Your task to perform on an android device: search for starred emails in the gmail app Image 0: 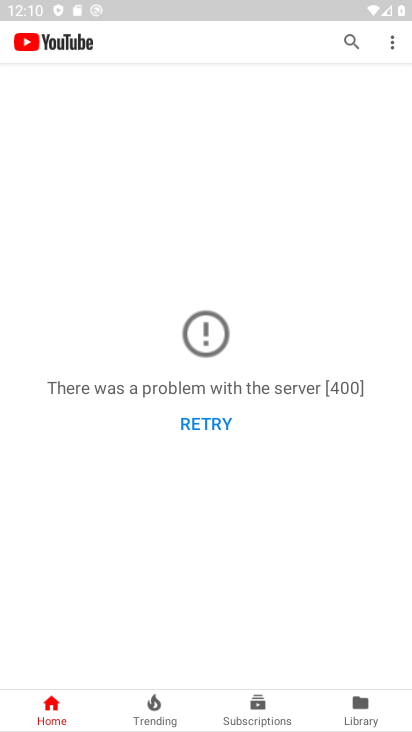
Step 0: press home button
Your task to perform on an android device: search for starred emails in the gmail app Image 1: 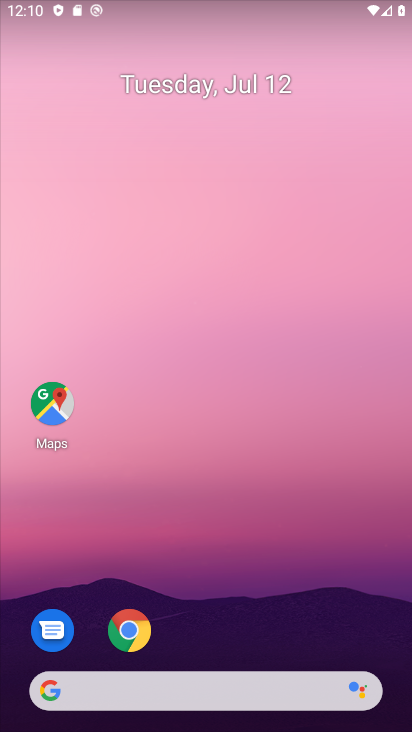
Step 1: drag from (235, 634) to (358, 94)
Your task to perform on an android device: search for starred emails in the gmail app Image 2: 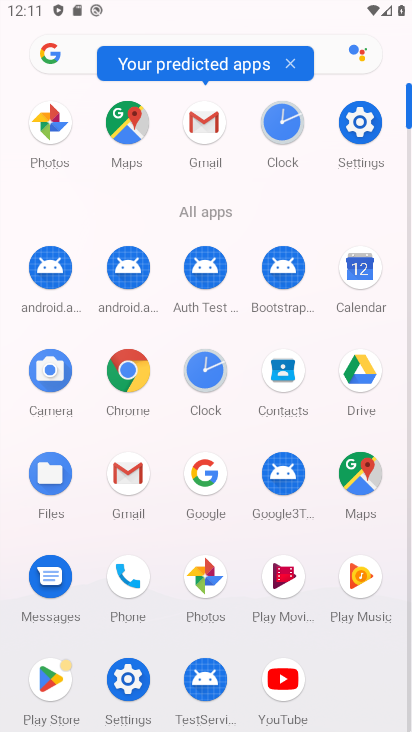
Step 2: click (120, 481)
Your task to perform on an android device: search for starred emails in the gmail app Image 3: 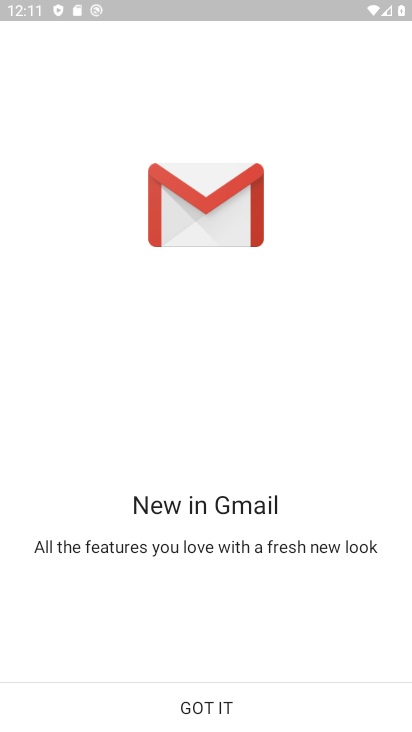
Step 3: click (223, 714)
Your task to perform on an android device: search for starred emails in the gmail app Image 4: 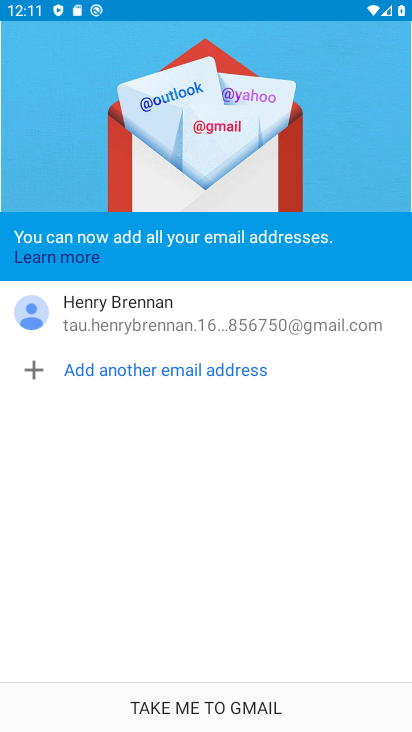
Step 4: click (223, 714)
Your task to perform on an android device: search for starred emails in the gmail app Image 5: 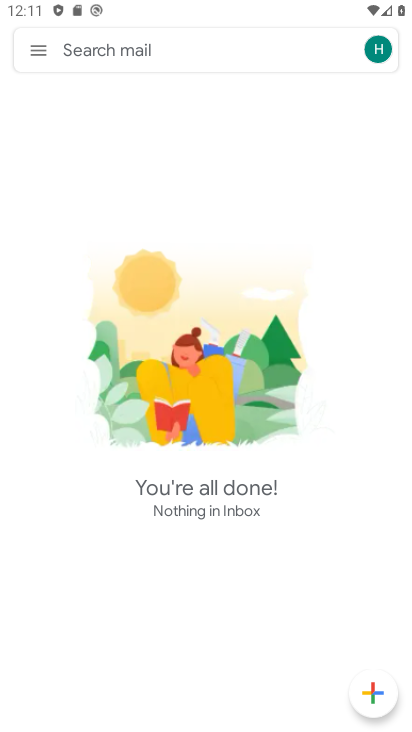
Step 5: click (37, 58)
Your task to perform on an android device: search for starred emails in the gmail app Image 6: 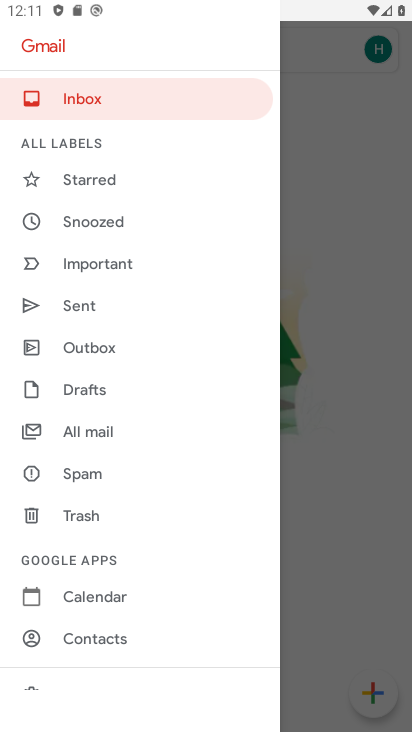
Step 6: click (129, 181)
Your task to perform on an android device: search for starred emails in the gmail app Image 7: 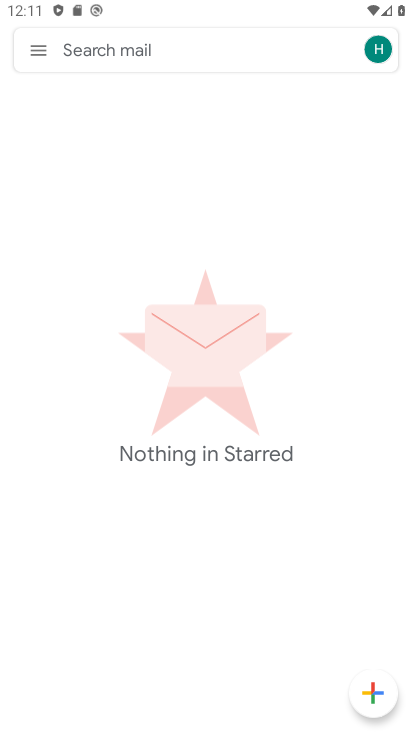
Step 7: task complete